Your task to perform on an android device: Open calendar and show me the second week of next month Image 0: 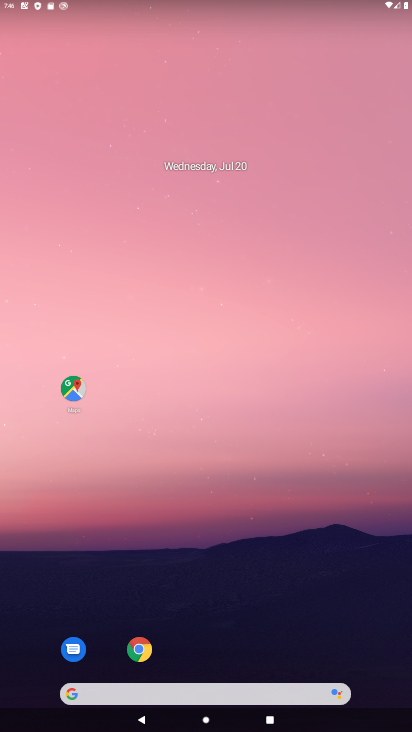
Step 0: drag from (311, 635) to (273, 164)
Your task to perform on an android device: Open calendar and show me the second week of next month Image 1: 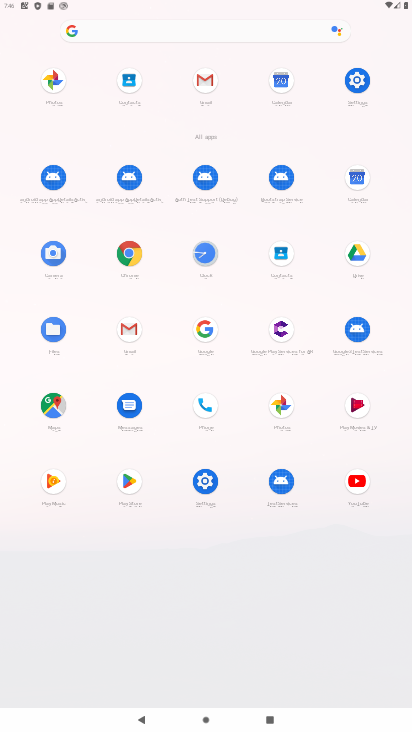
Step 1: click (299, 99)
Your task to perform on an android device: Open calendar and show me the second week of next month Image 2: 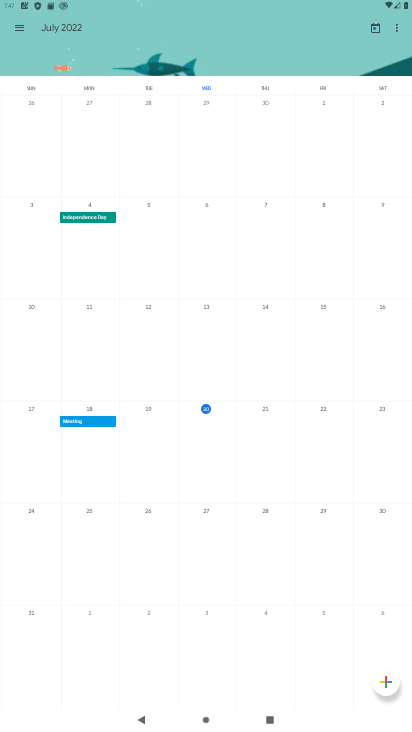
Step 2: task complete